Your task to perform on an android device: turn on sleep mode Image 0: 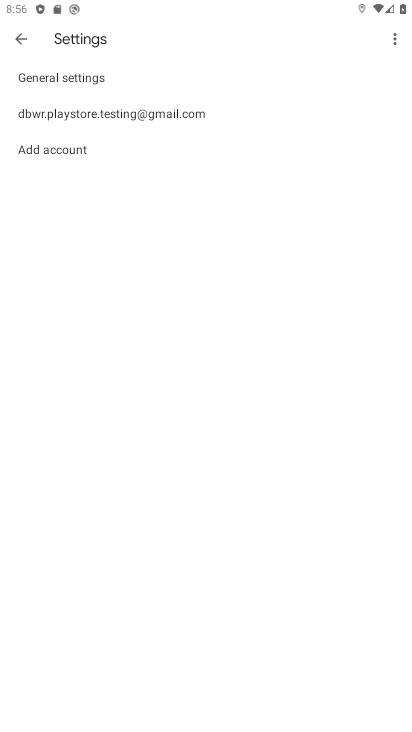
Step 0: drag from (209, 654) to (238, 113)
Your task to perform on an android device: turn on sleep mode Image 1: 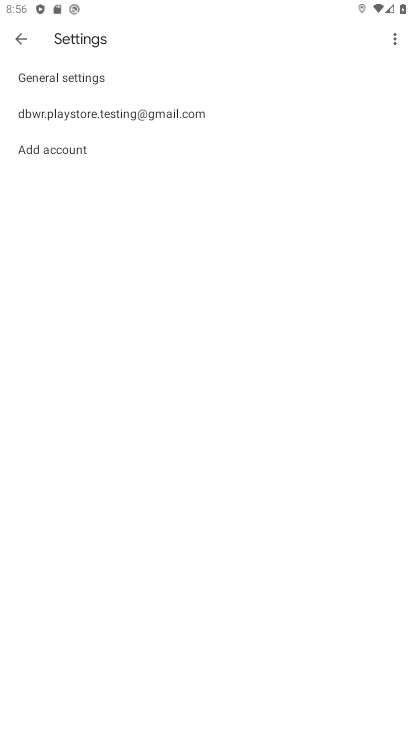
Step 1: press home button
Your task to perform on an android device: turn on sleep mode Image 2: 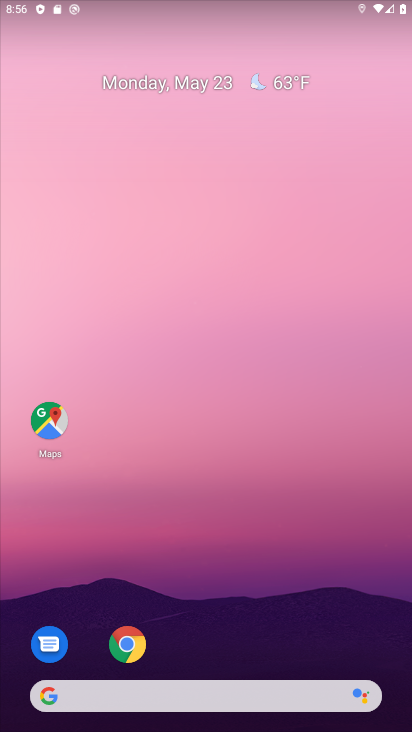
Step 2: drag from (216, 658) to (232, 11)
Your task to perform on an android device: turn on sleep mode Image 3: 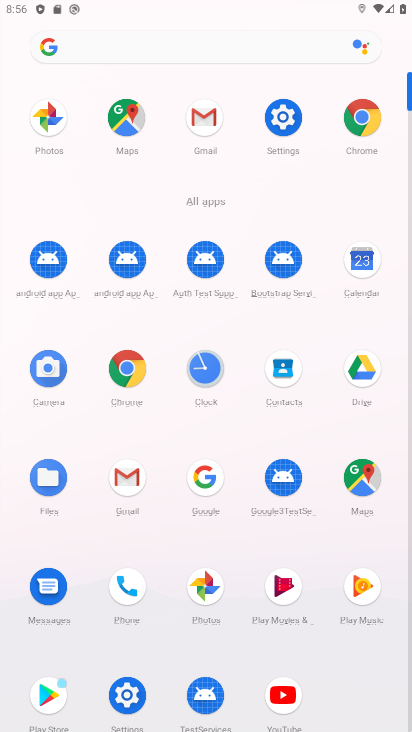
Step 3: click (279, 110)
Your task to perform on an android device: turn on sleep mode Image 4: 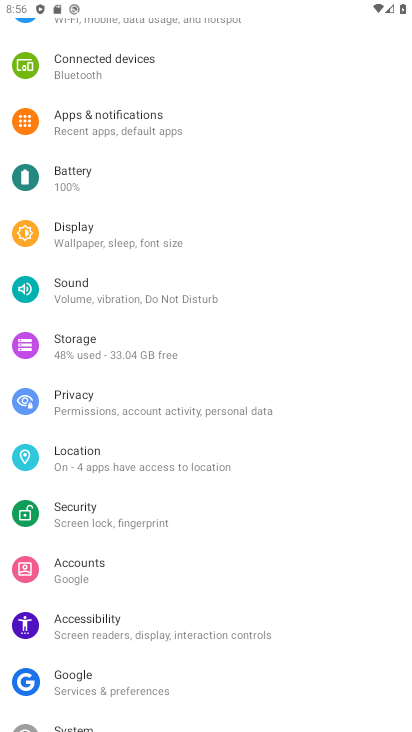
Step 4: click (105, 221)
Your task to perform on an android device: turn on sleep mode Image 5: 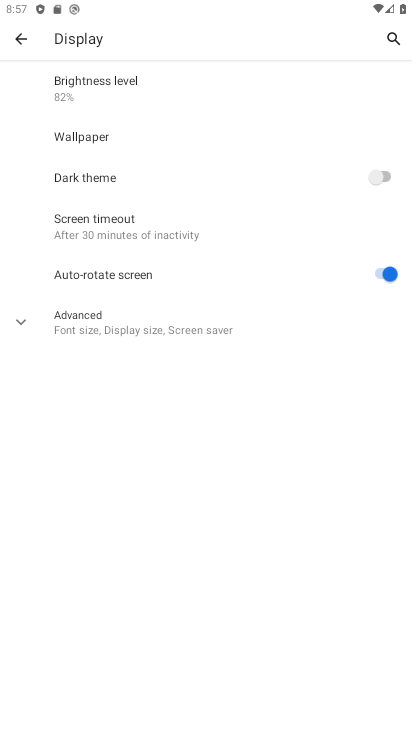
Step 5: click (13, 318)
Your task to perform on an android device: turn on sleep mode Image 6: 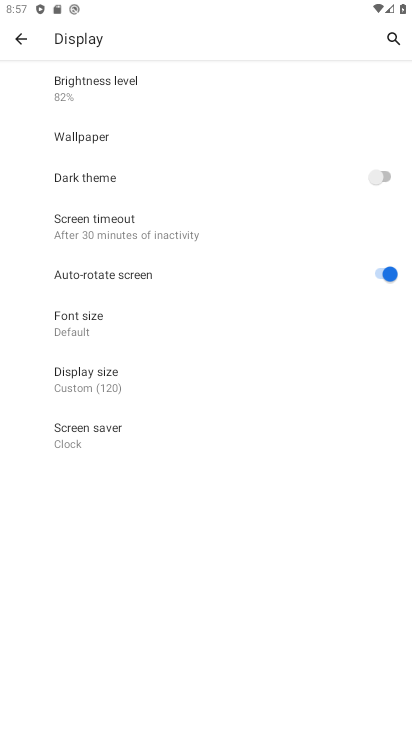
Step 6: task complete